Your task to perform on an android device: turn on notifications settings in the gmail app Image 0: 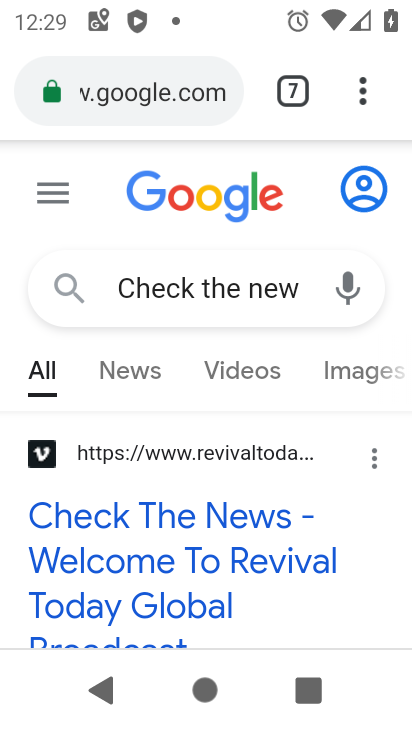
Step 0: press home button
Your task to perform on an android device: turn on notifications settings in the gmail app Image 1: 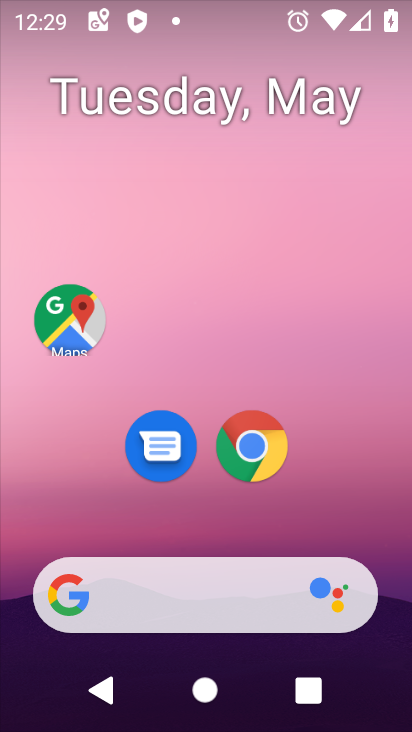
Step 1: drag from (352, 462) to (357, 218)
Your task to perform on an android device: turn on notifications settings in the gmail app Image 2: 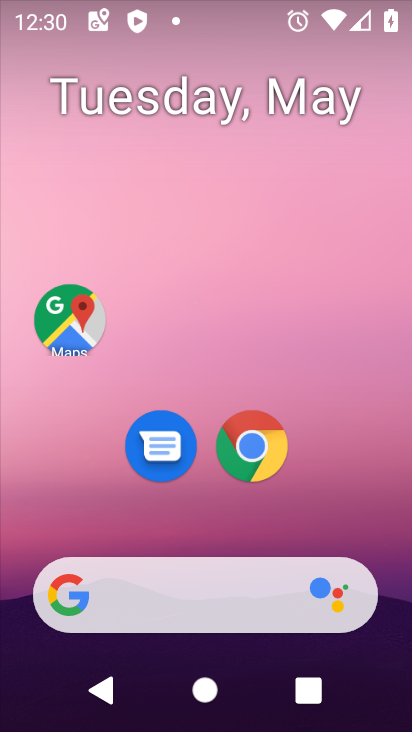
Step 2: drag from (241, 499) to (234, 170)
Your task to perform on an android device: turn on notifications settings in the gmail app Image 3: 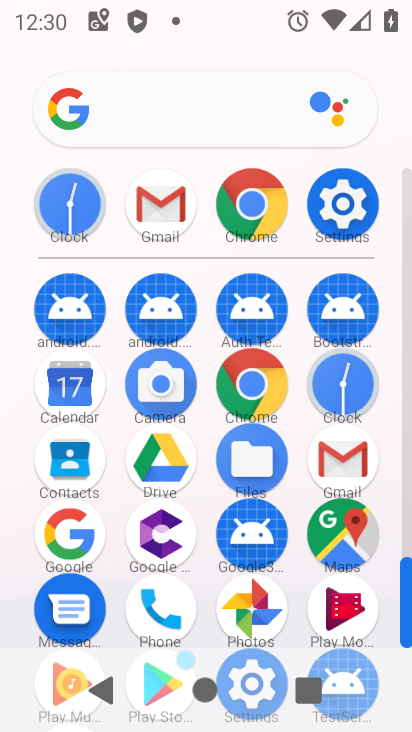
Step 3: click (252, 374)
Your task to perform on an android device: turn on notifications settings in the gmail app Image 4: 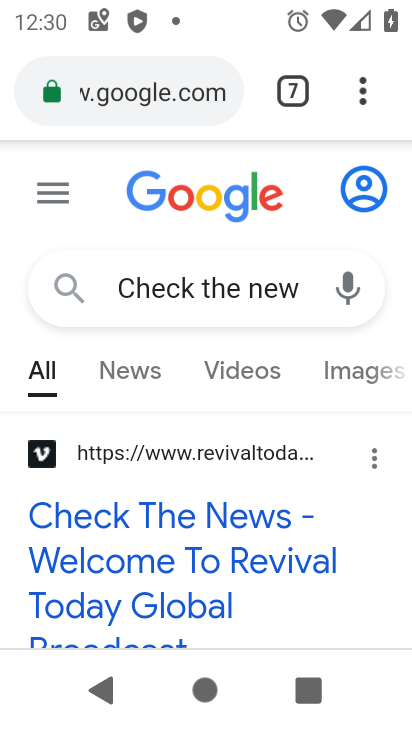
Step 4: press home button
Your task to perform on an android device: turn on notifications settings in the gmail app Image 5: 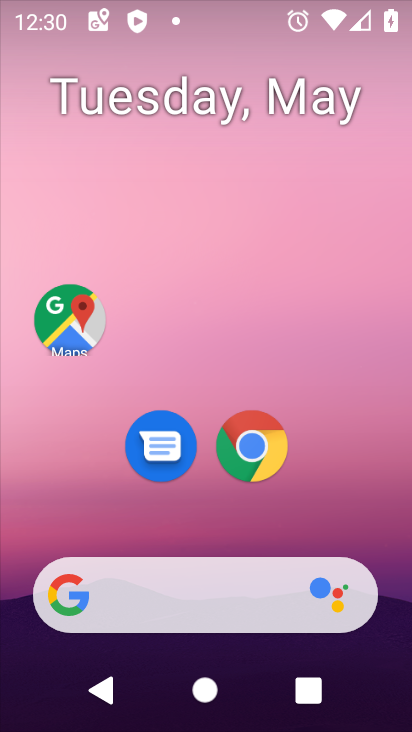
Step 5: drag from (230, 545) to (248, 250)
Your task to perform on an android device: turn on notifications settings in the gmail app Image 6: 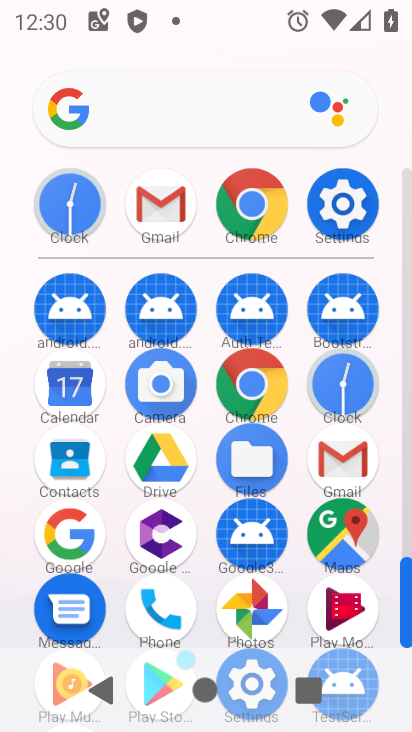
Step 6: click (328, 463)
Your task to perform on an android device: turn on notifications settings in the gmail app Image 7: 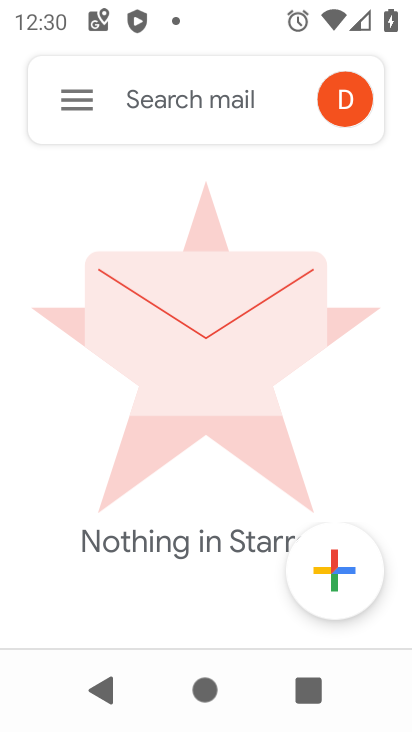
Step 7: click (47, 100)
Your task to perform on an android device: turn on notifications settings in the gmail app Image 8: 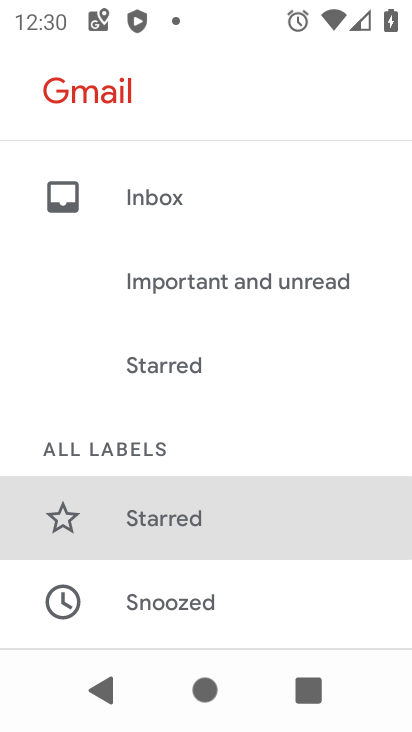
Step 8: drag from (189, 598) to (280, 207)
Your task to perform on an android device: turn on notifications settings in the gmail app Image 9: 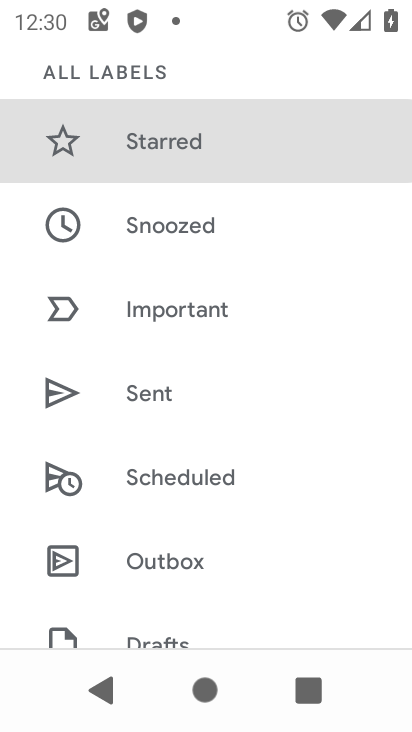
Step 9: drag from (221, 553) to (293, 213)
Your task to perform on an android device: turn on notifications settings in the gmail app Image 10: 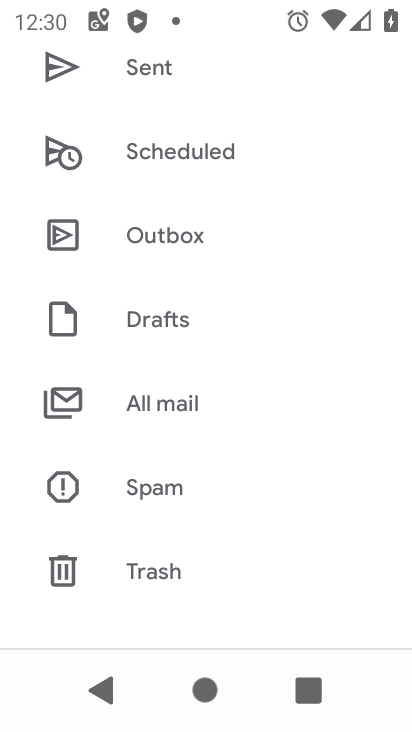
Step 10: drag from (155, 587) to (226, 232)
Your task to perform on an android device: turn on notifications settings in the gmail app Image 11: 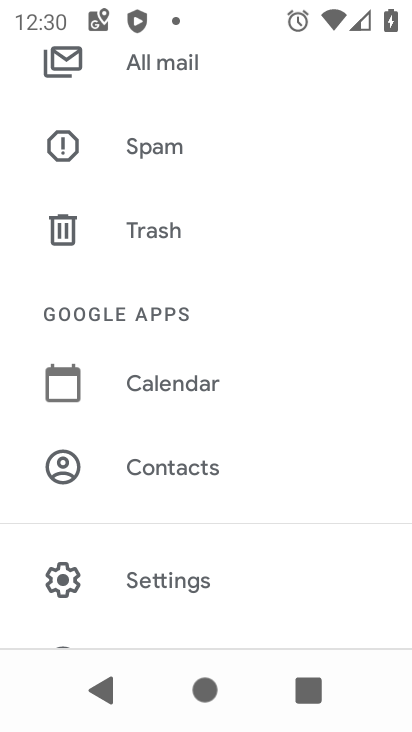
Step 11: click (127, 568)
Your task to perform on an android device: turn on notifications settings in the gmail app Image 12: 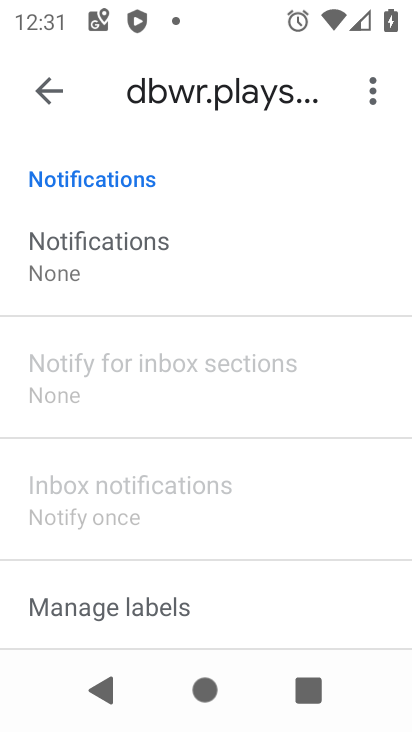
Step 12: click (114, 248)
Your task to perform on an android device: turn on notifications settings in the gmail app Image 13: 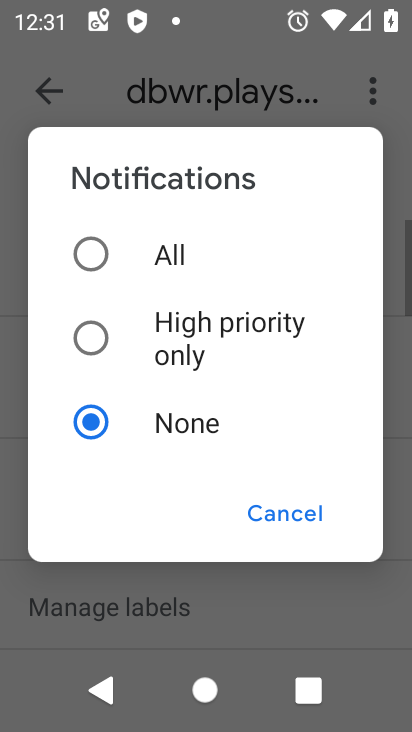
Step 13: click (132, 246)
Your task to perform on an android device: turn on notifications settings in the gmail app Image 14: 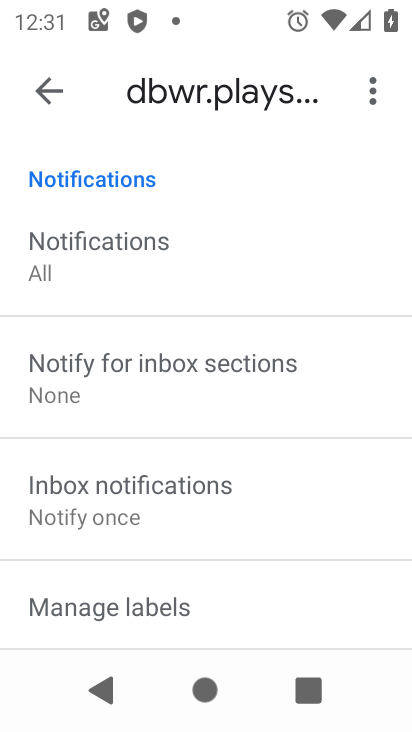
Step 14: task complete